Your task to perform on an android device: Open Google Maps Image 0: 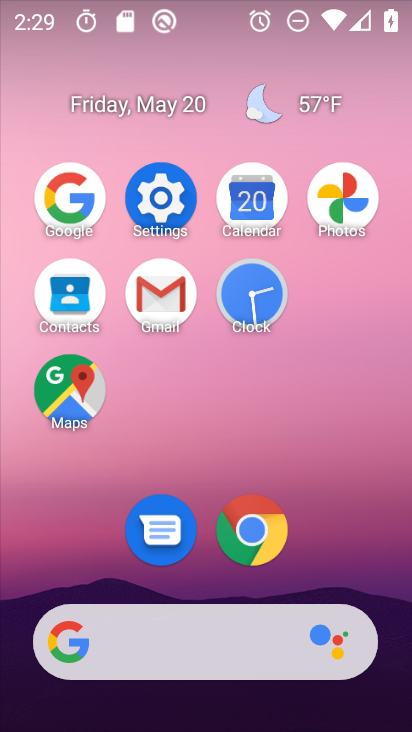
Step 0: click (64, 394)
Your task to perform on an android device: Open Google Maps Image 1: 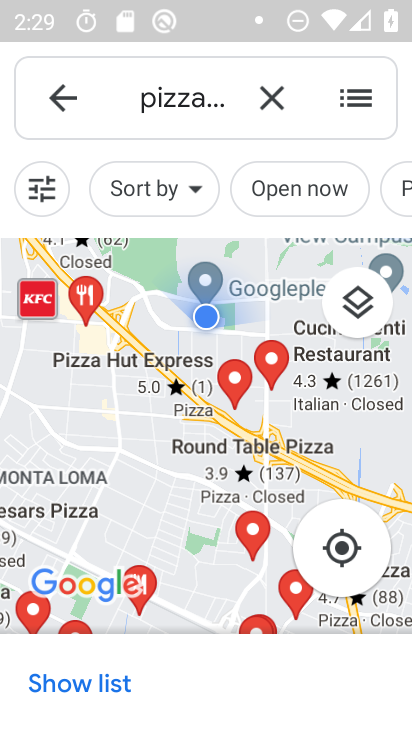
Step 1: task complete